Your task to perform on an android device: Go to Google maps Image 0: 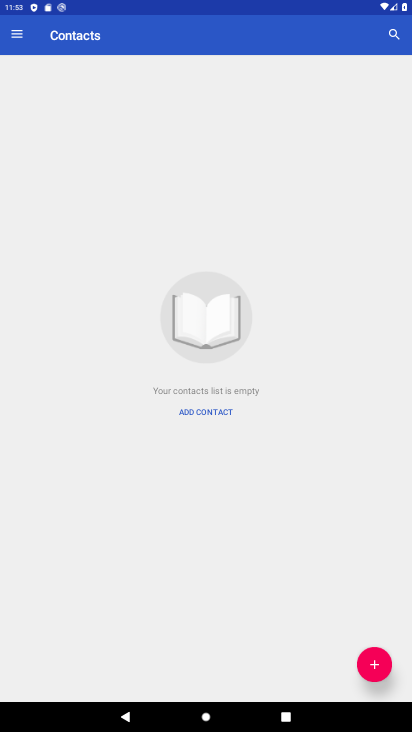
Step 0: press home button
Your task to perform on an android device: Go to Google maps Image 1: 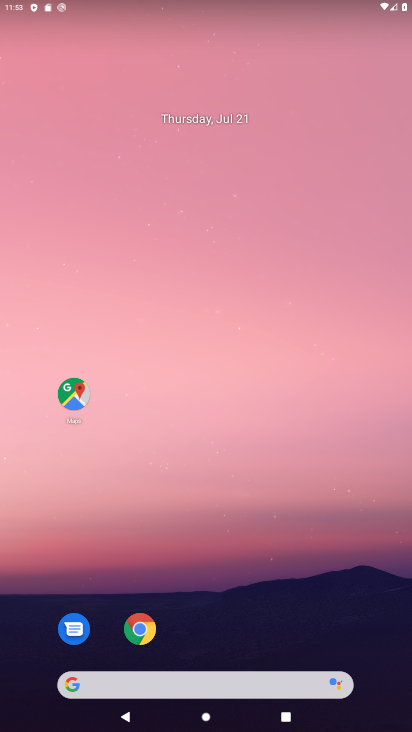
Step 1: drag from (129, 668) to (183, 37)
Your task to perform on an android device: Go to Google maps Image 2: 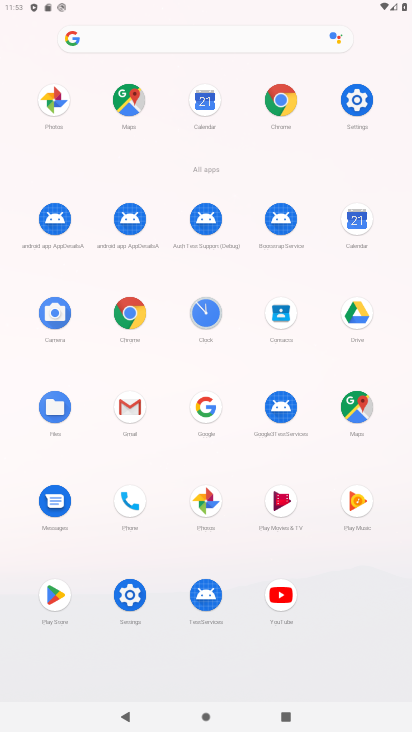
Step 2: click (351, 402)
Your task to perform on an android device: Go to Google maps Image 3: 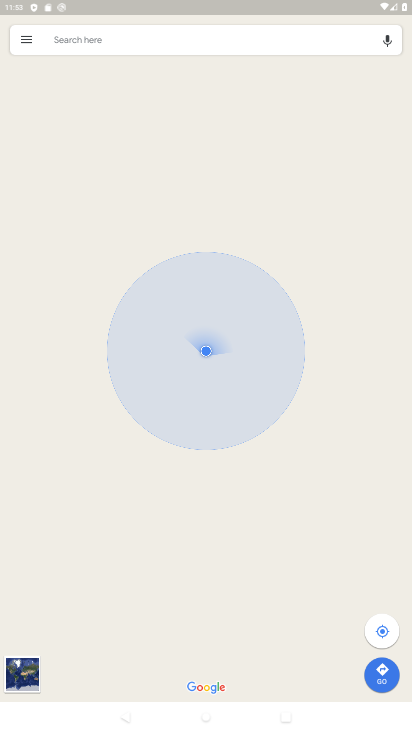
Step 3: task complete